Your task to perform on an android device: Open the calendar app, open the side menu, and click the "Day" option Image 0: 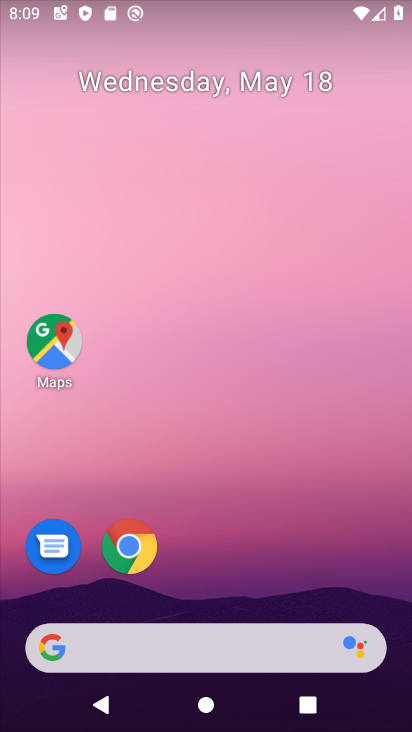
Step 0: drag from (335, 658) to (312, 139)
Your task to perform on an android device: Open the calendar app, open the side menu, and click the "Day" option Image 1: 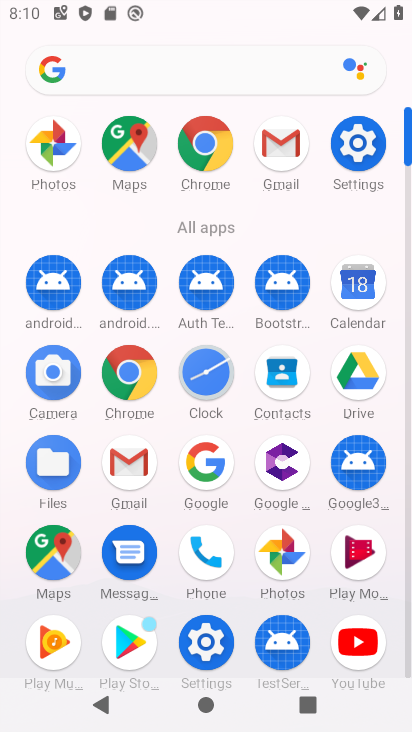
Step 1: click (360, 283)
Your task to perform on an android device: Open the calendar app, open the side menu, and click the "Day" option Image 2: 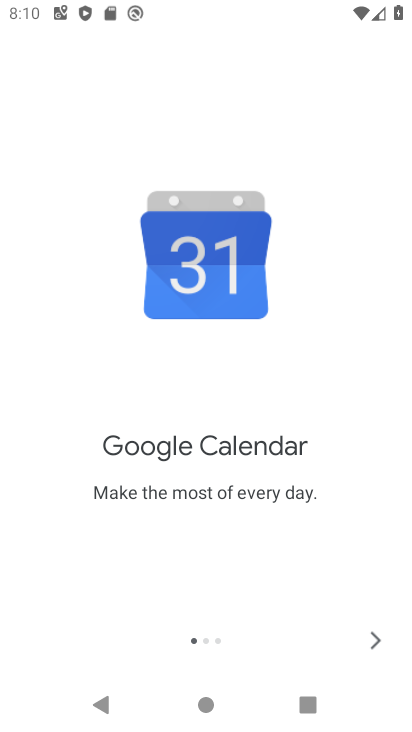
Step 2: click (379, 637)
Your task to perform on an android device: Open the calendar app, open the side menu, and click the "Day" option Image 3: 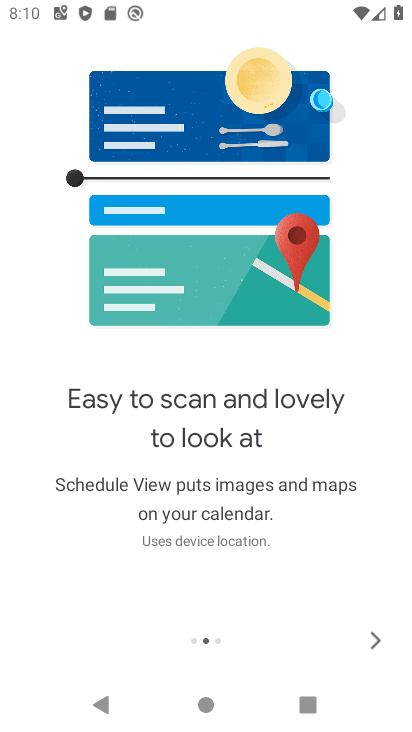
Step 3: click (372, 624)
Your task to perform on an android device: Open the calendar app, open the side menu, and click the "Day" option Image 4: 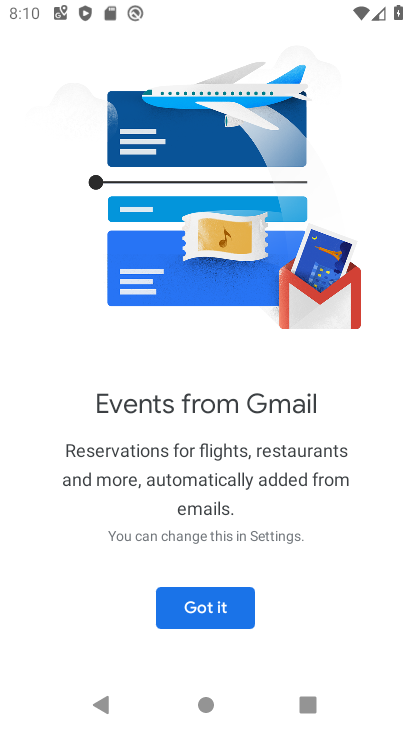
Step 4: click (235, 602)
Your task to perform on an android device: Open the calendar app, open the side menu, and click the "Day" option Image 5: 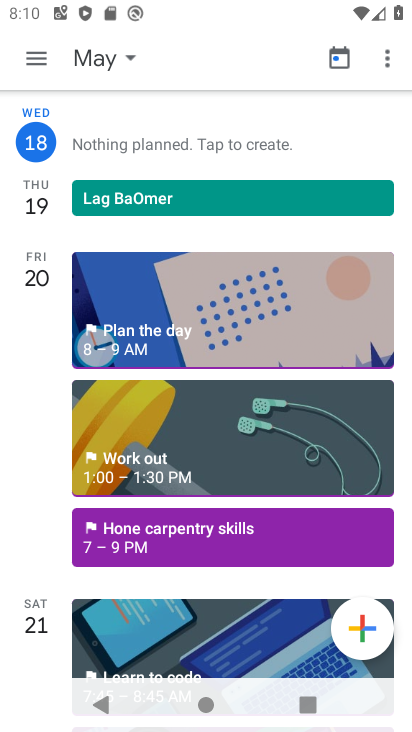
Step 5: click (29, 59)
Your task to perform on an android device: Open the calendar app, open the side menu, and click the "Day" option Image 6: 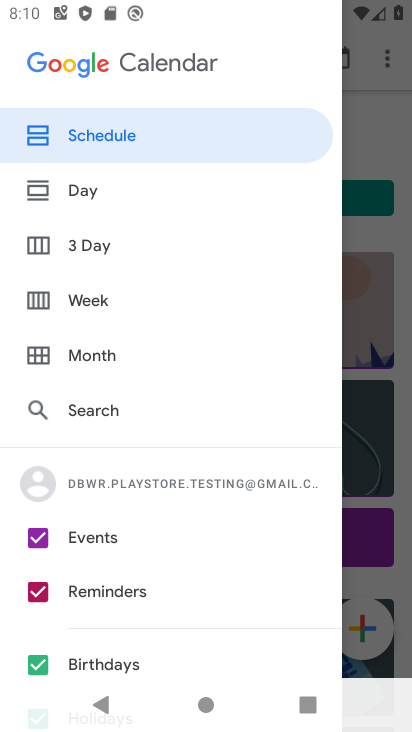
Step 6: click (90, 198)
Your task to perform on an android device: Open the calendar app, open the side menu, and click the "Day" option Image 7: 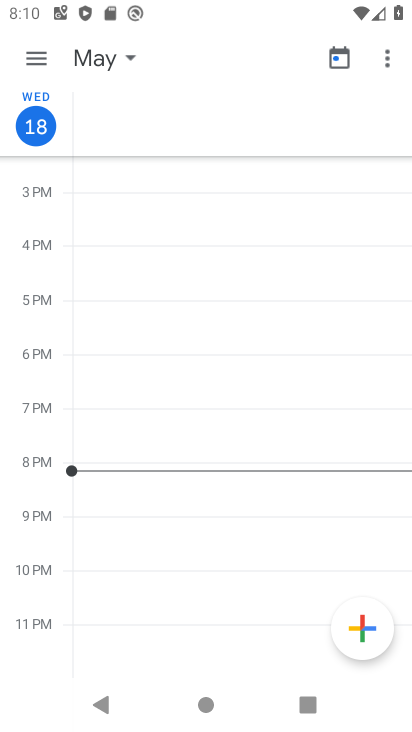
Step 7: task complete